Your task to perform on an android device: Go to calendar. Show me events next week Image 0: 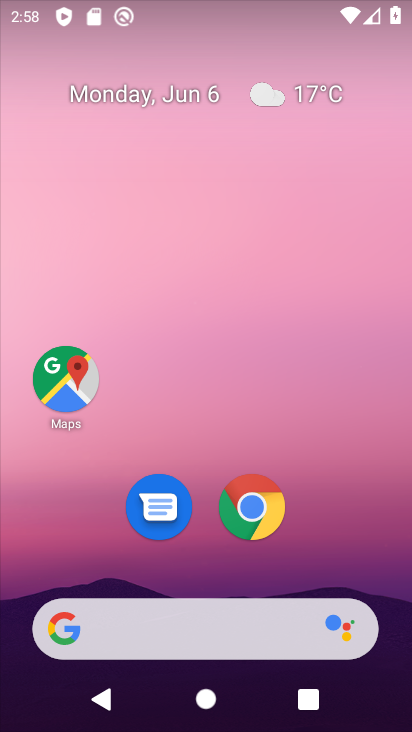
Step 0: drag from (330, 550) to (326, 157)
Your task to perform on an android device: Go to calendar. Show me events next week Image 1: 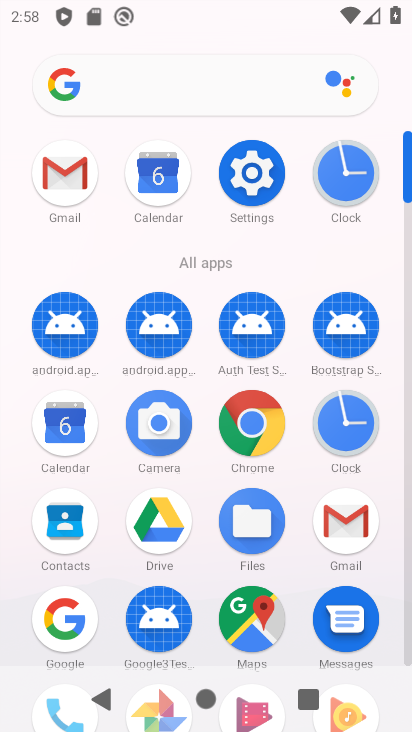
Step 1: click (74, 434)
Your task to perform on an android device: Go to calendar. Show me events next week Image 2: 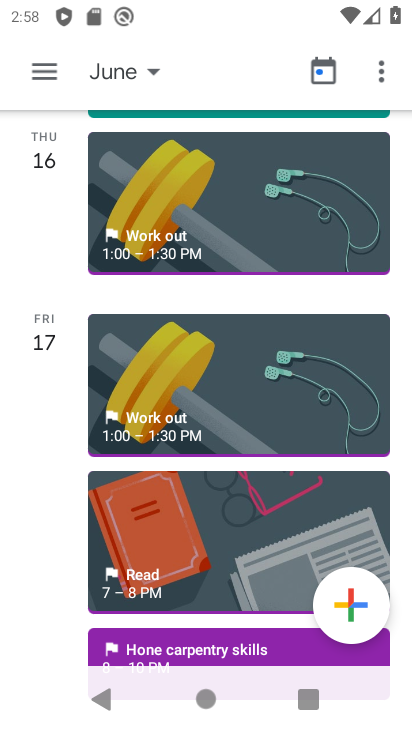
Step 2: click (47, 70)
Your task to perform on an android device: Go to calendar. Show me events next week Image 3: 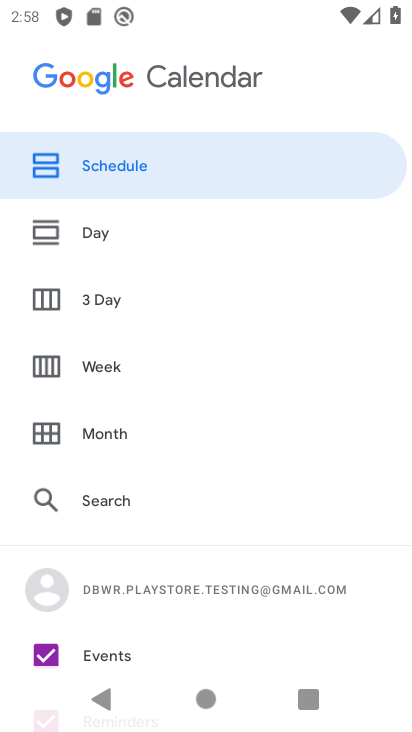
Step 3: click (118, 165)
Your task to perform on an android device: Go to calendar. Show me events next week Image 4: 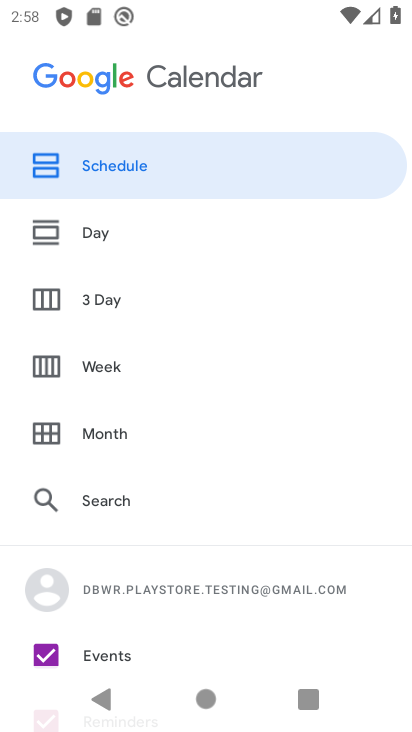
Step 4: click (113, 170)
Your task to perform on an android device: Go to calendar. Show me events next week Image 5: 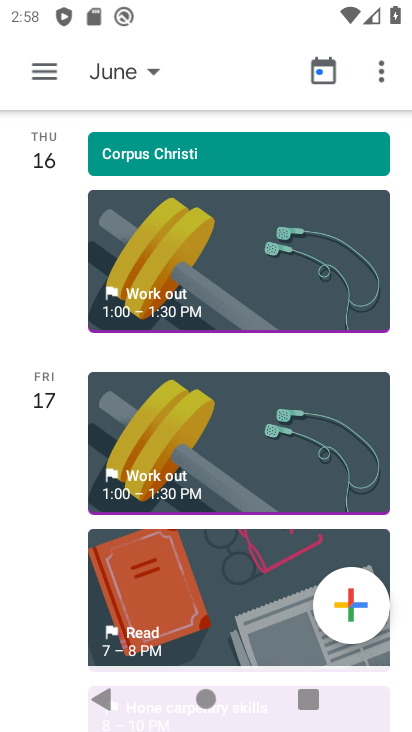
Step 5: task complete